Your task to perform on an android device: Open Yahoo.com Image 0: 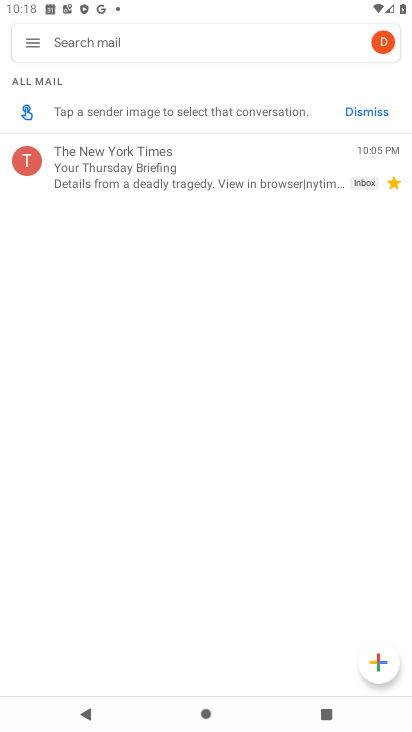
Step 0: press home button
Your task to perform on an android device: Open Yahoo.com Image 1: 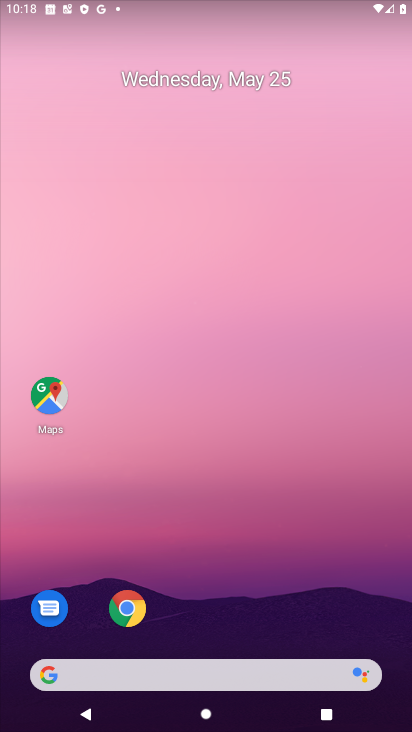
Step 1: click (133, 609)
Your task to perform on an android device: Open Yahoo.com Image 2: 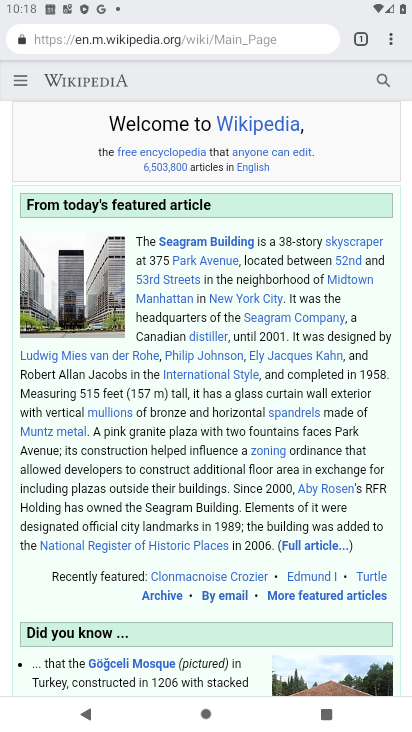
Step 2: click (113, 41)
Your task to perform on an android device: Open Yahoo.com Image 3: 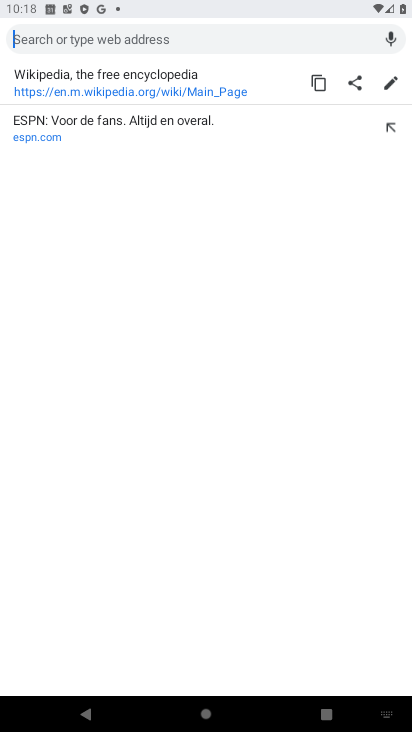
Step 3: type "yahoo.com"
Your task to perform on an android device: Open Yahoo.com Image 4: 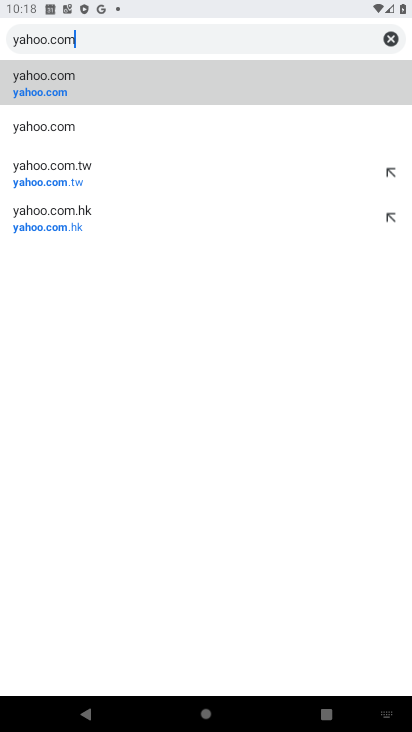
Step 4: click (26, 135)
Your task to perform on an android device: Open Yahoo.com Image 5: 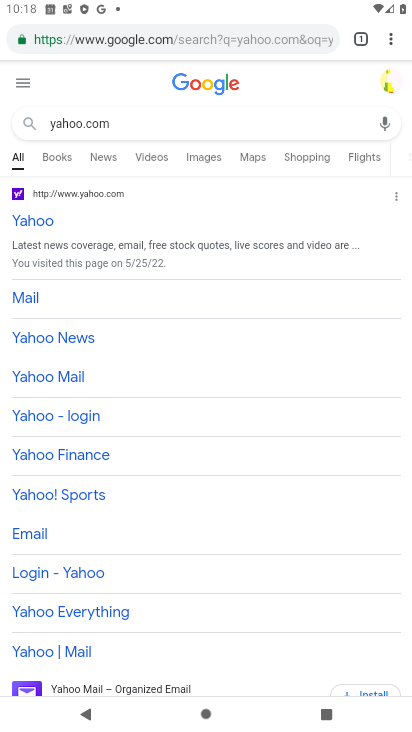
Step 5: click (14, 224)
Your task to perform on an android device: Open Yahoo.com Image 6: 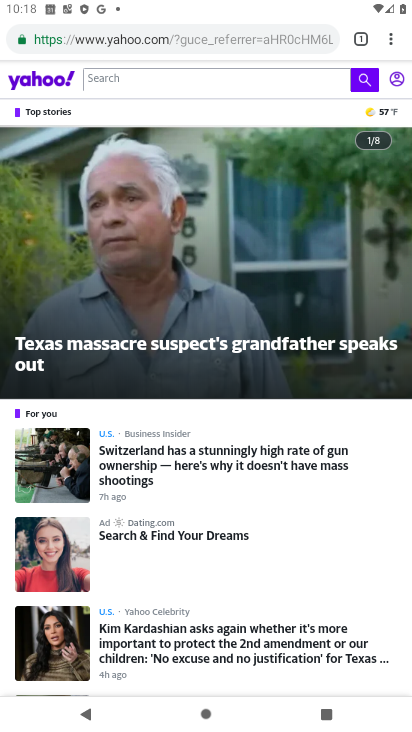
Step 6: task complete